Your task to perform on an android device: uninstall "Skype" Image 0: 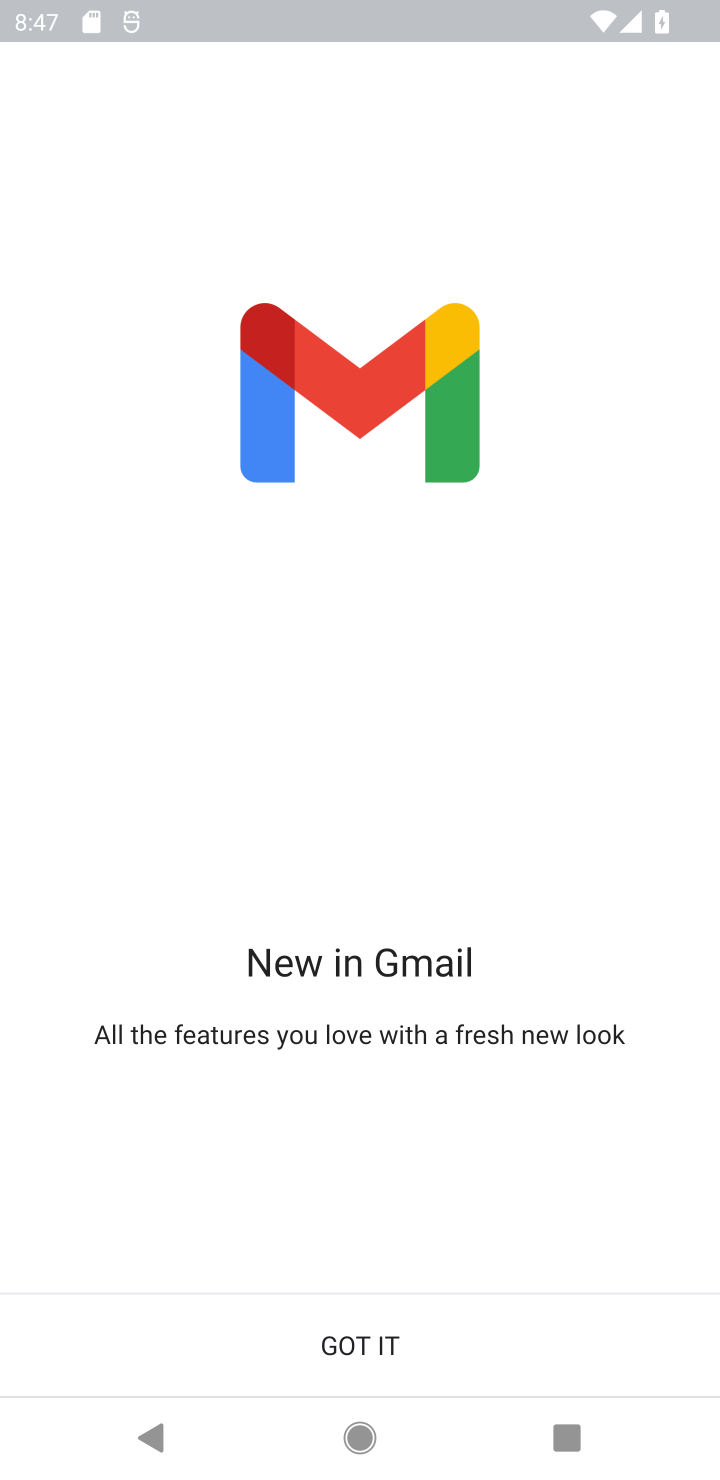
Step 0: click (338, 1363)
Your task to perform on an android device: uninstall "Skype" Image 1: 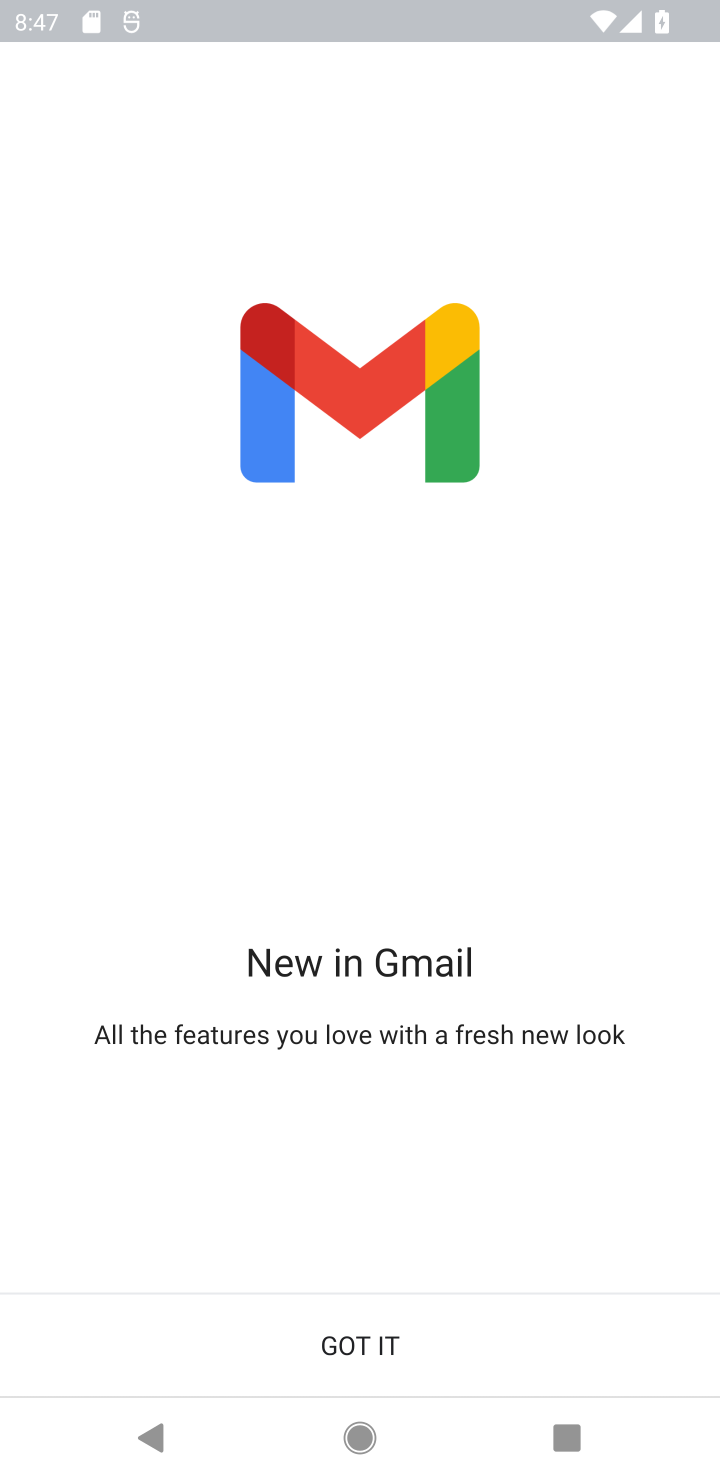
Step 1: press home button
Your task to perform on an android device: uninstall "Skype" Image 2: 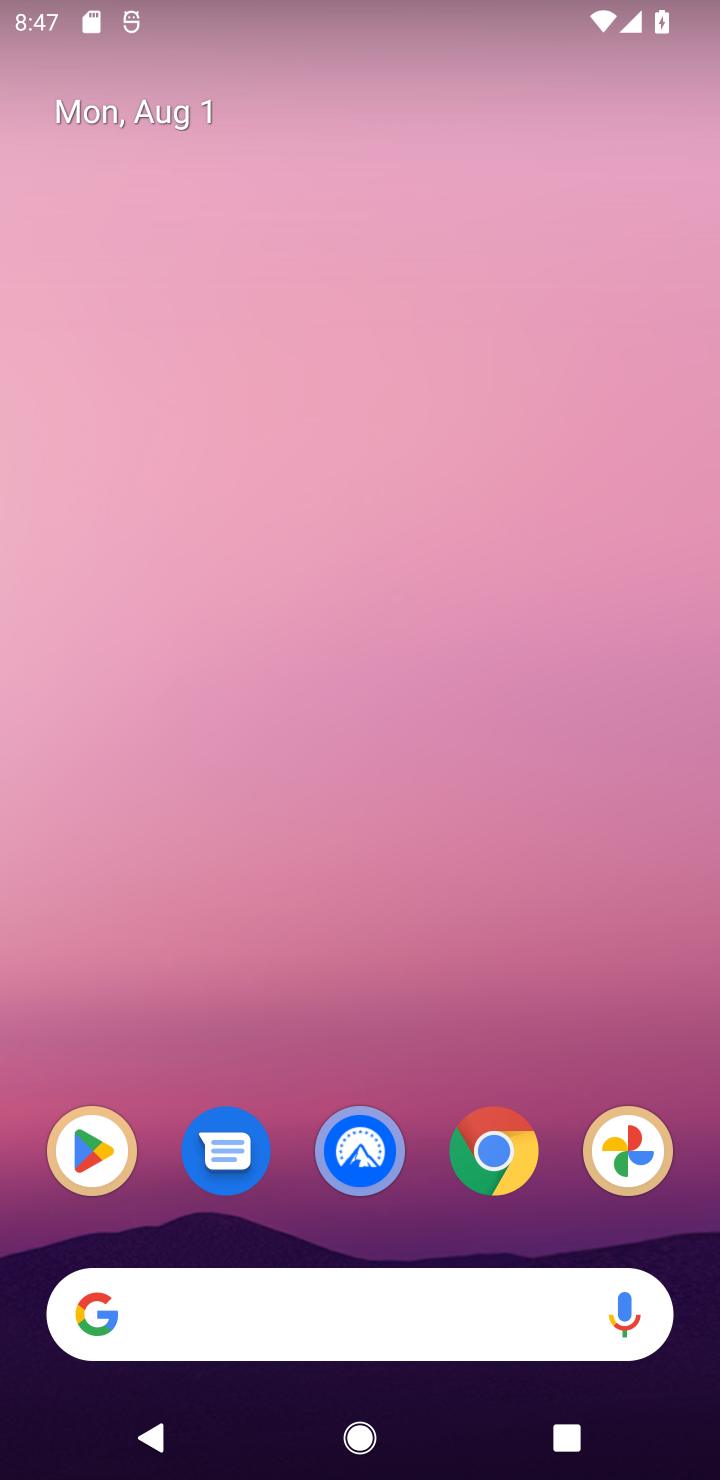
Step 2: click (60, 1176)
Your task to perform on an android device: uninstall "Skype" Image 3: 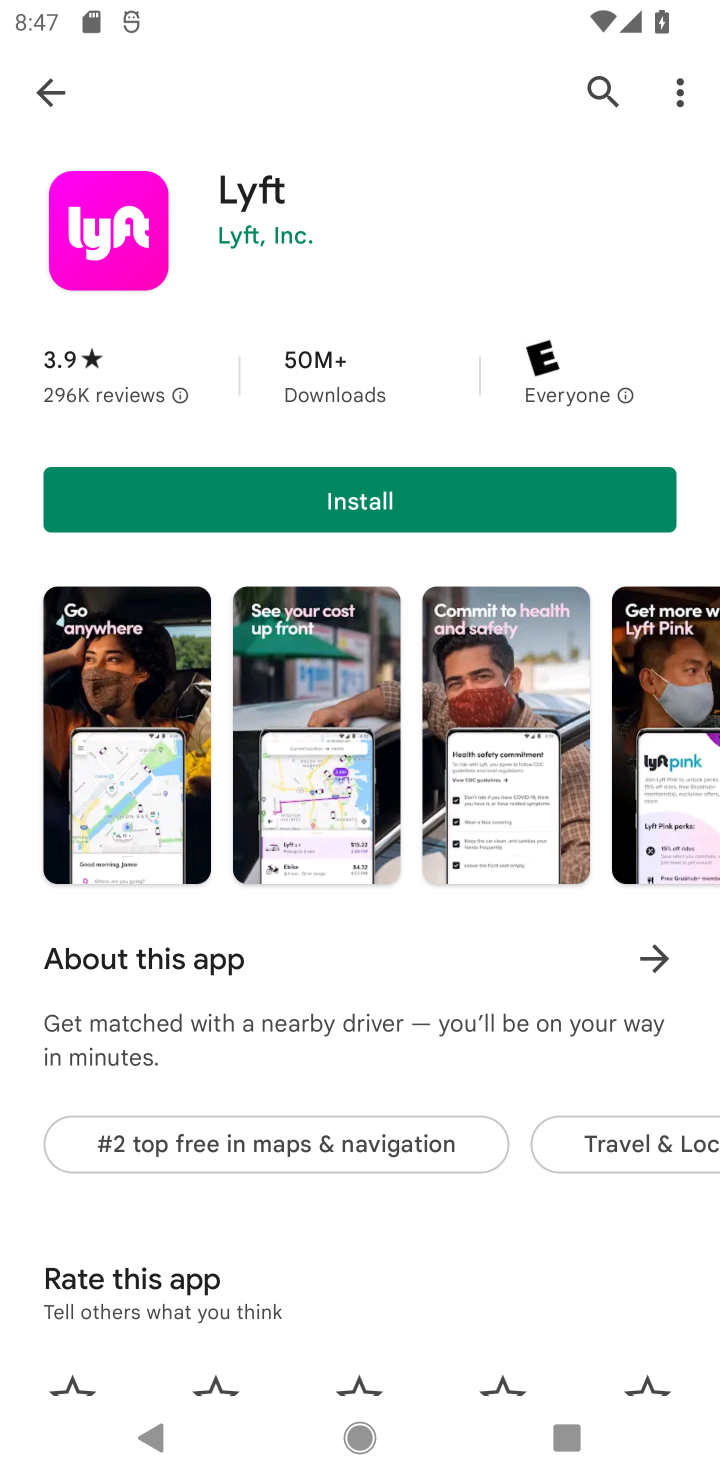
Step 3: task complete